Your task to perform on an android device: Open the stopwatch Image 0: 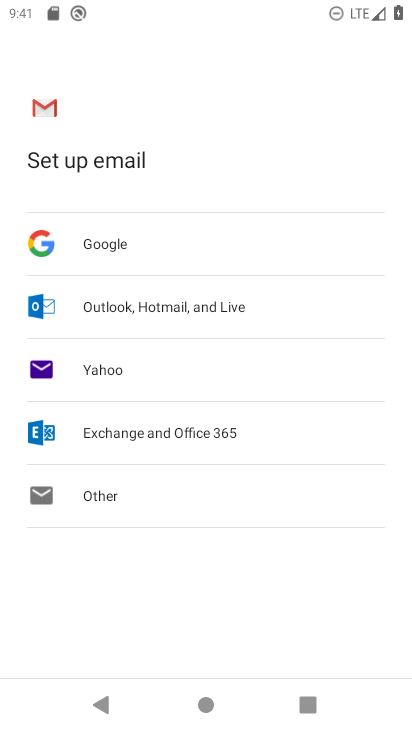
Step 0: press home button
Your task to perform on an android device: Open the stopwatch Image 1: 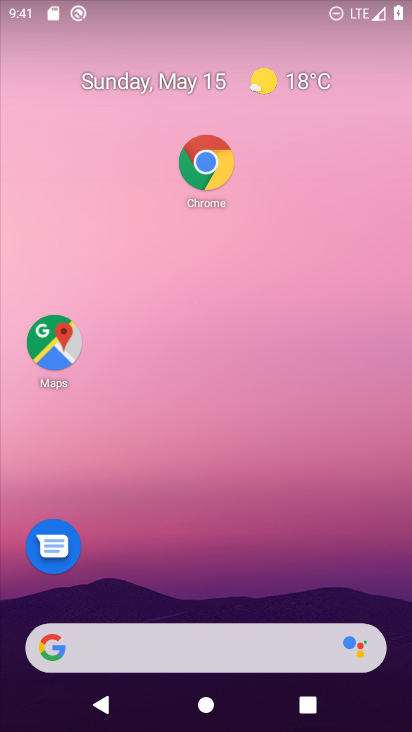
Step 1: drag from (217, 589) to (283, 155)
Your task to perform on an android device: Open the stopwatch Image 2: 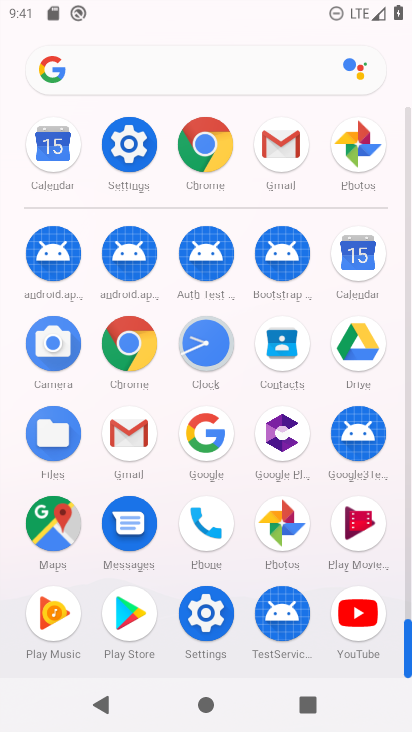
Step 2: click (193, 343)
Your task to perform on an android device: Open the stopwatch Image 3: 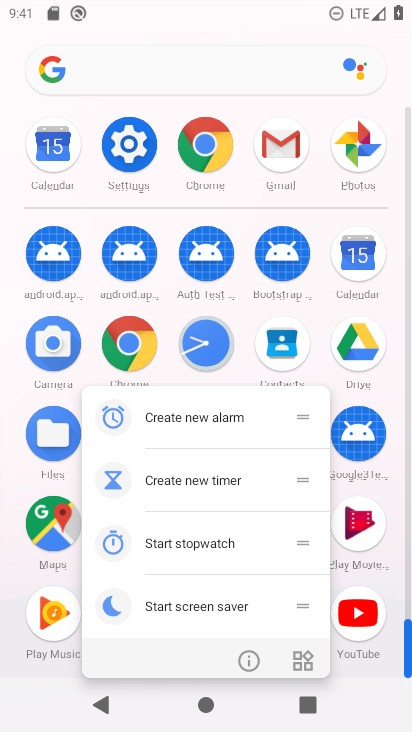
Step 3: click (208, 336)
Your task to perform on an android device: Open the stopwatch Image 4: 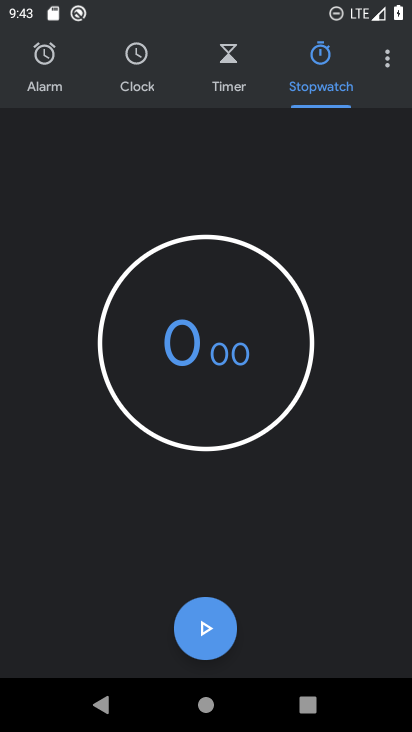
Step 4: task complete